Your task to perform on an android device: Open settings Image 0: 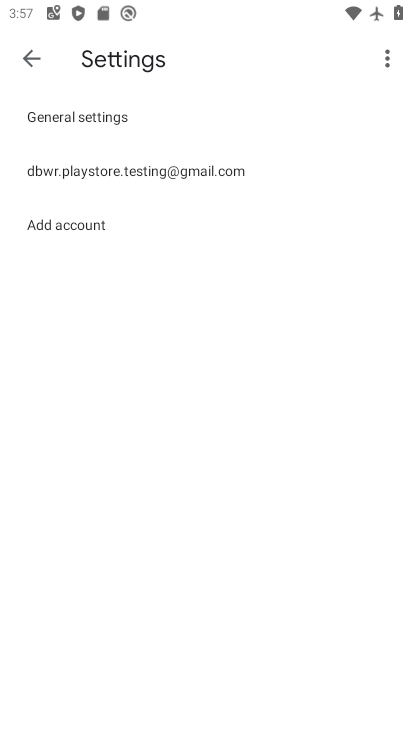
Step 0: press home button
Your task to perform on an android device: Open settings Image 1: 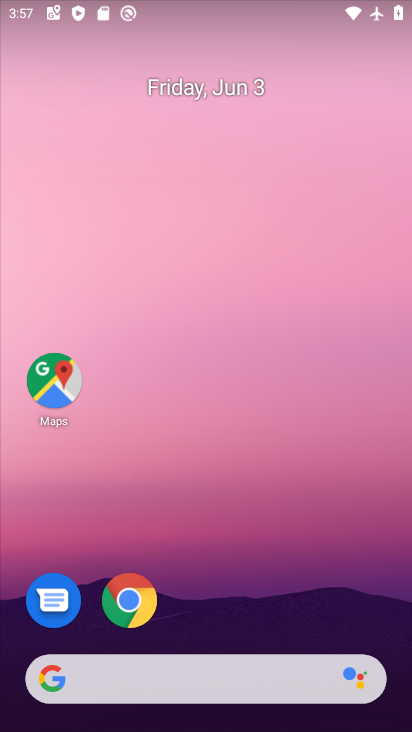
Step 1: drag from (187, 604) to (297, 100)
Your task to perform on an android device: Open settings Image 2: 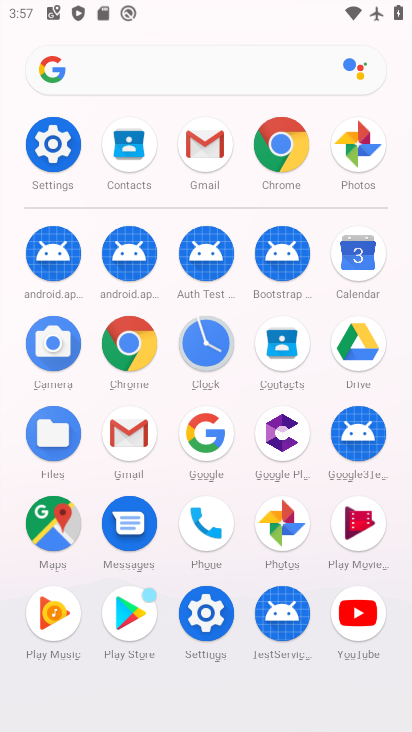
Step 2: click (218, 617)
Your task to perform on an android device: Open settings Image 3: 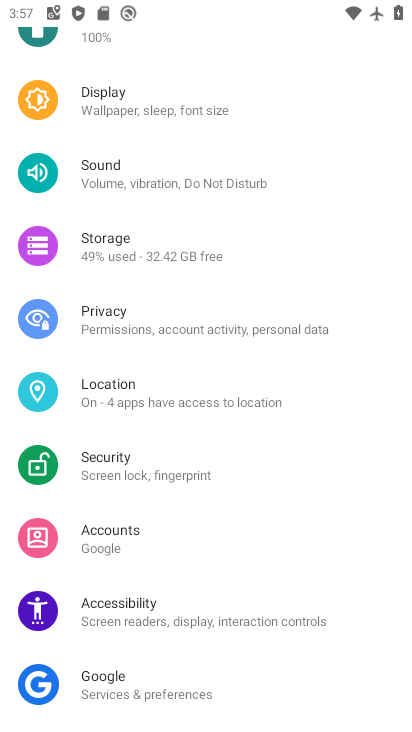
Step 3: task complete